Your task to perform on an android device: Open wifi settings Image 0: 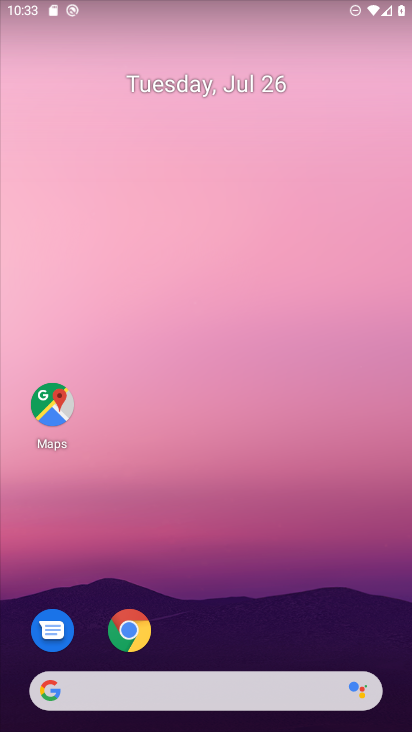
Step 0: drag from (390, 649) to (329, 95)
Your task to perform on an android device: Open wifi settings Image 1: 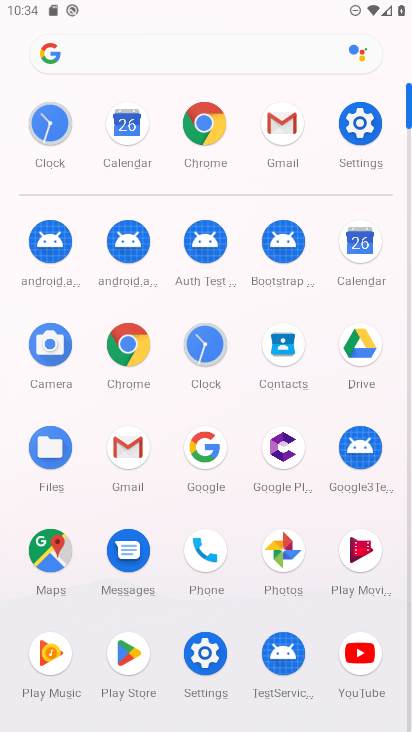
Step 1: click (202, 653)
Your task to perform on an android device: Open wifi settings Image 2: 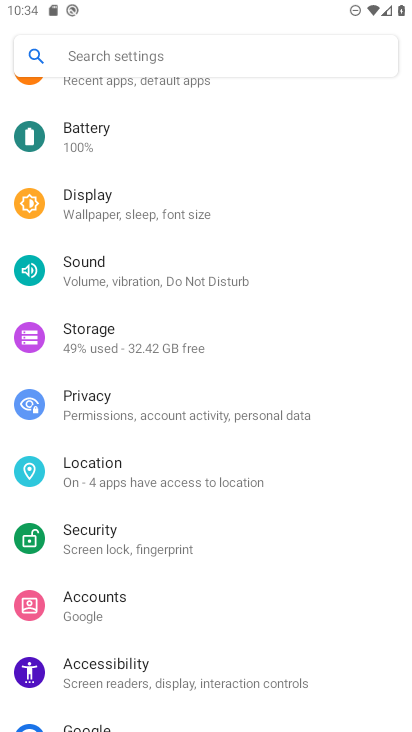
Step 2: drag from (270, 153) to (278, 478)
Your task to perform on an android device: Open wifi settings Image 3: 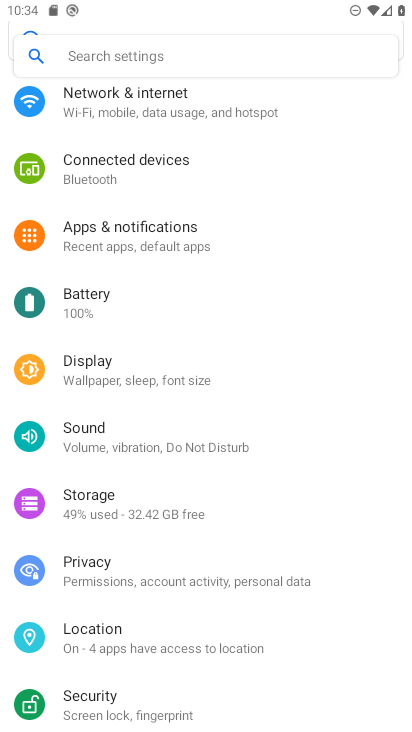
Step 3: drag from (275, 193) to (304, 563)
Your task to perform on an android device: Open wifi settings Image 4: 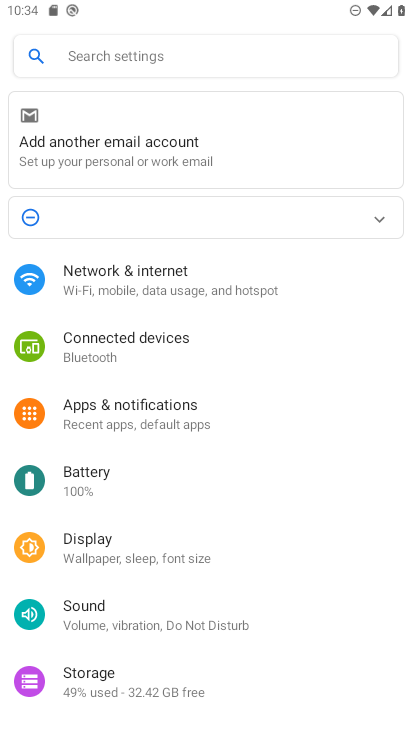
Step 4: click (88, 280)
Your task to perform on an android device: Open wifi settings Image 5: 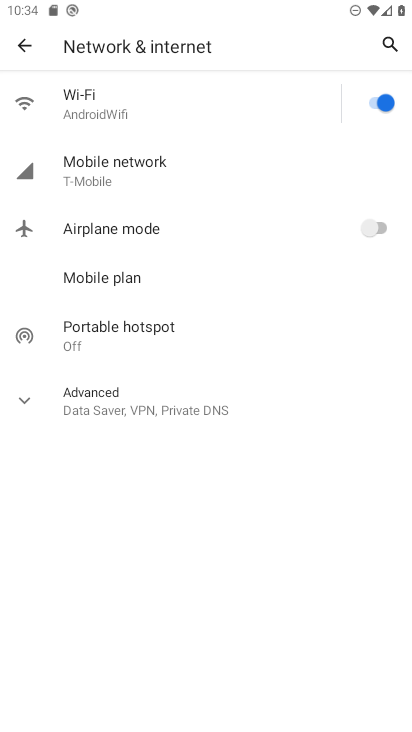
Step 5: click (76, 97)
Your task to perform on an android device: Open wifi settings Image 6: 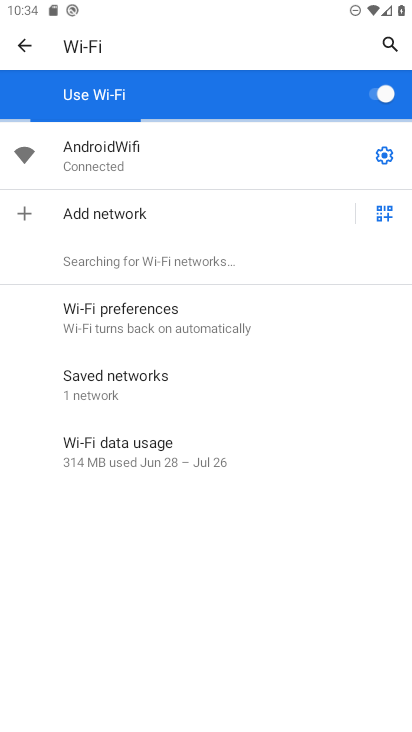
Step 6: click (385, 152)
Your task to perform on an android device: Open wifi settings Image 7: 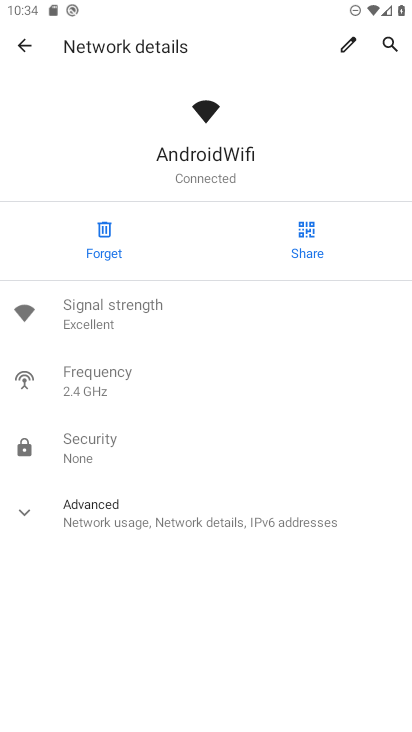
Step 7: click (25, 512)
Your task to perform on an android device: Open wifi settings Image 8: 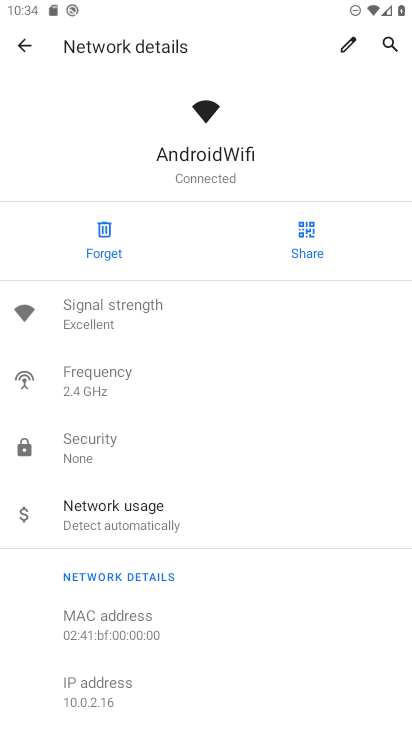
Step 8: task complete